Your task to perform on an android device: Show me popular videos on Youtube Image 0: 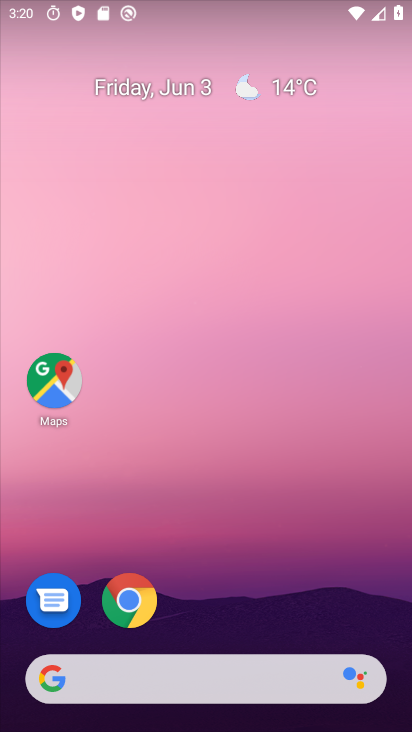
Step 0: drag from (257, 100) to (237, 3)
Your task to perform on an android device: Show me popular videos on Youtube Image 1: 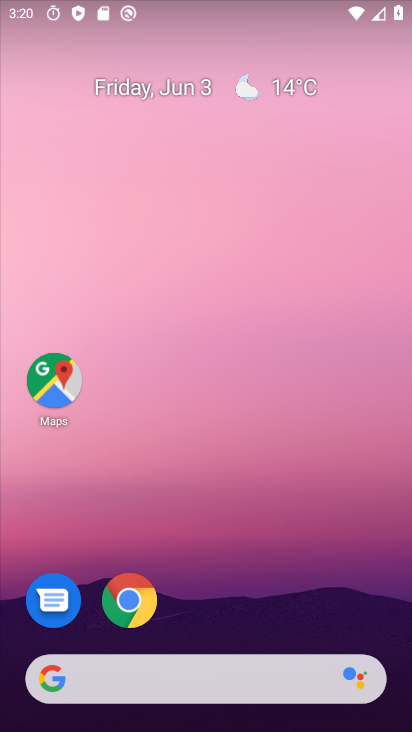
Step 1: drag from (261, 587) to (186, 27)
Your task to perform on an android device: Show me popular videos on Youtube Image 2: 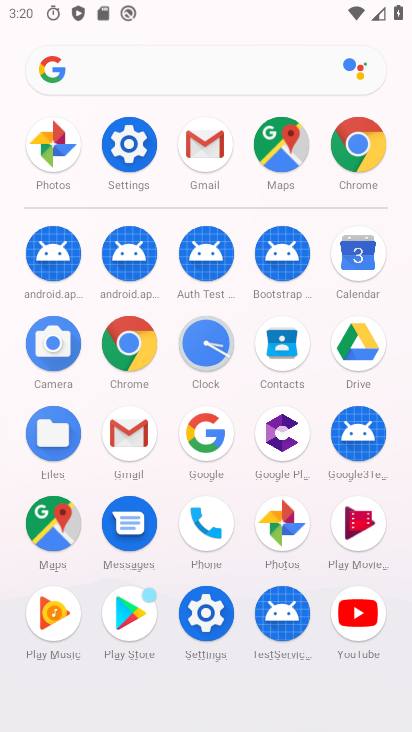
Step 2: drag from (5, 562) to (6, 210)
Your task to perform on an android device: Show me popular videos on Youtube Image 3: 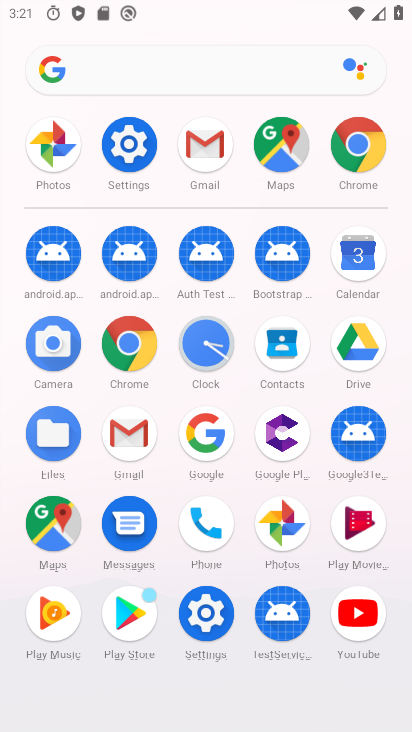
Step 3: click (362, 615)
Your task to perform on an android device: Show me popular videos on Youtube Image 4: 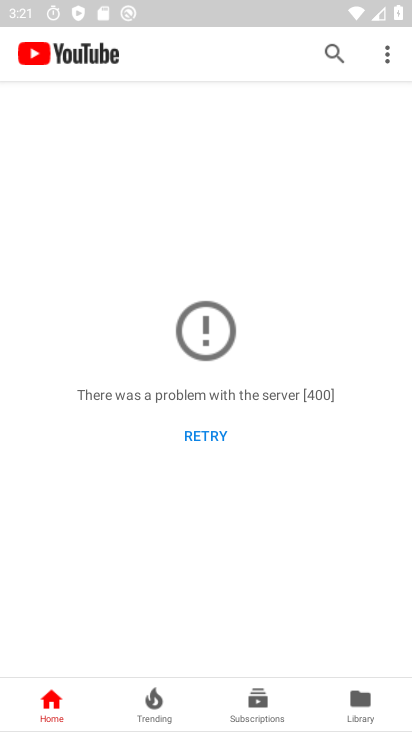
Step 4: task complete